Your task to perform on an android device: turn off notifications in google photos Image 0: 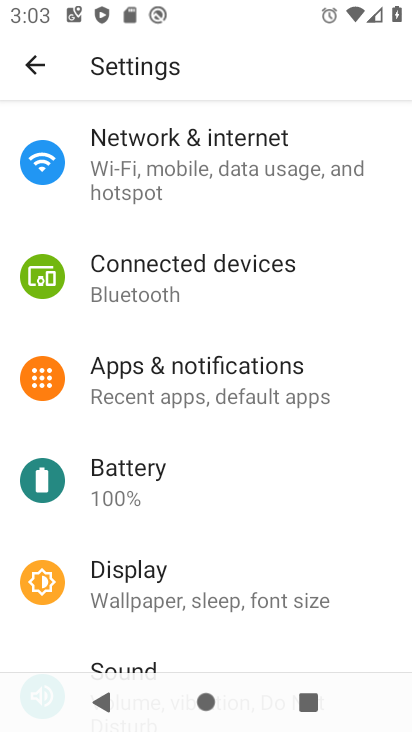
Step 0: press home button
Your task to perform on an android device: turn off notifications in google photos Image 1: 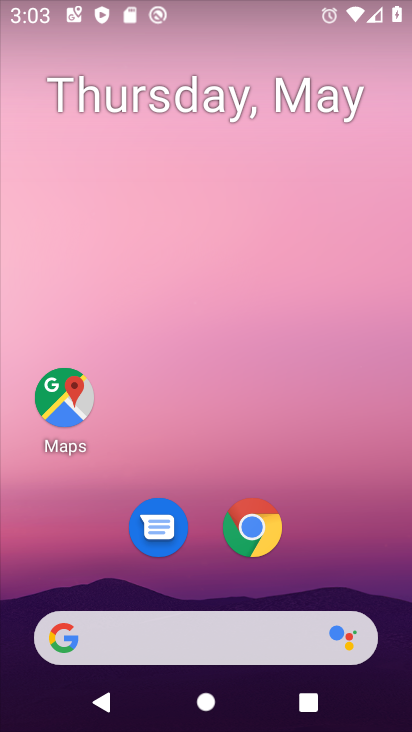
Step 1: drag from (114, 606) to (197, 128)
Your task to perform on an android device: turn off notifications in google photos Image 2: 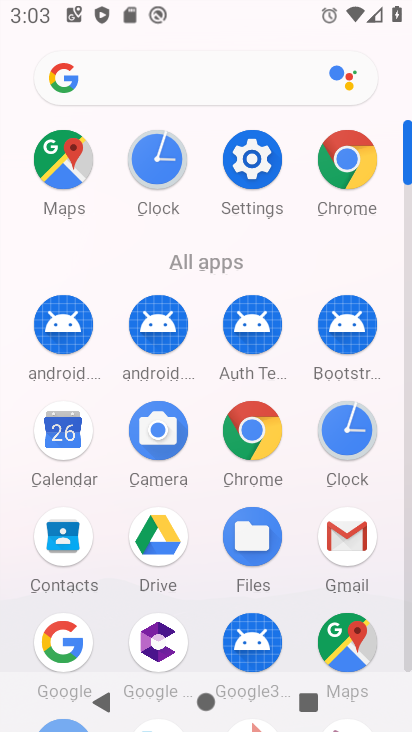
Step 2: drag from (193, 615) to (247, 328)
Your task to perform on an android device: turn off notifications in google photos Image 3: 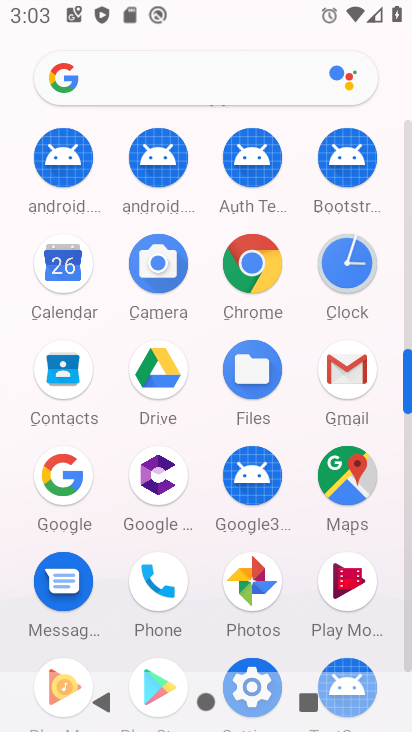
Step 3: click (262, 587)
Your task to perform on an android device: turn off notifications in google photos Image 4: 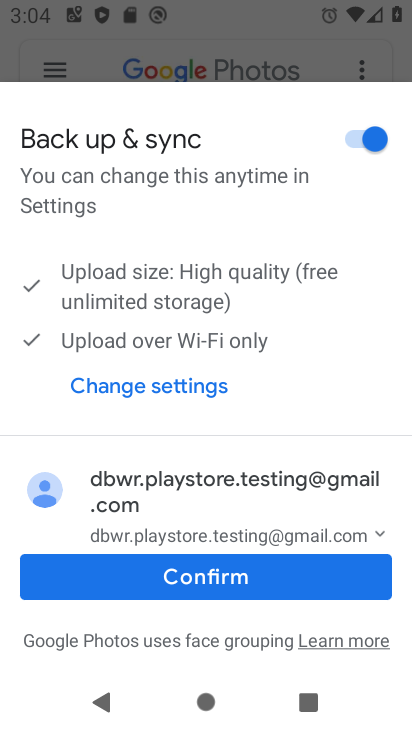
Step 4: click (239, 584)
Your task to perform on an android device: turn off notifications in google photos Image 5: 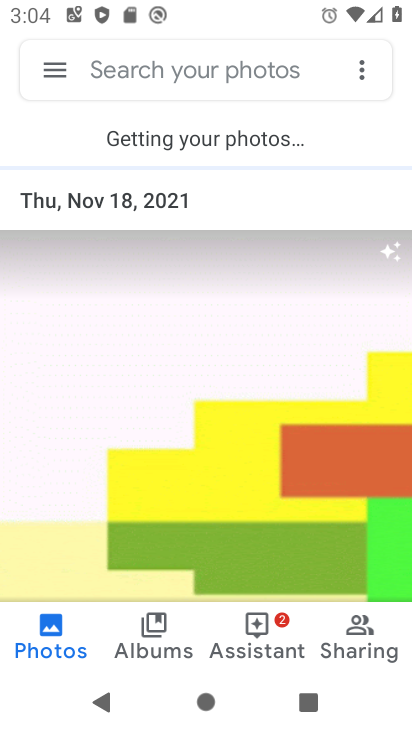
Step 5: click (53, 61)
Your task to perform on an android device: turn off notifications in google photos Image 6: 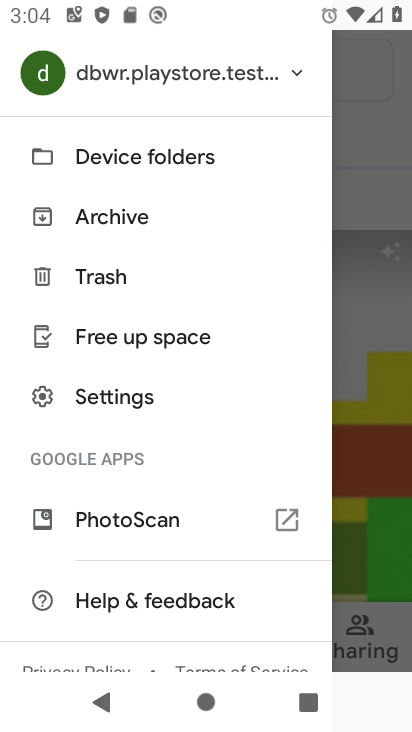
Step 6: click (149, 414)
Your task to perform on an android device: turn off notifications in google photos Image 7: 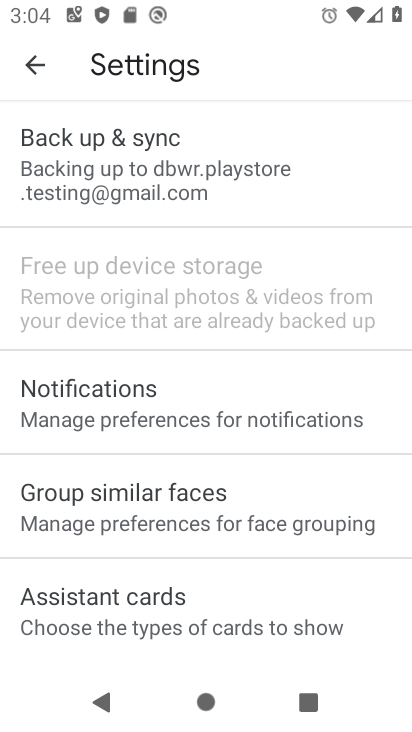
Step 7: click (151, 403)
Your task to perform on an android device: turn off notifications in google photos Image 8: 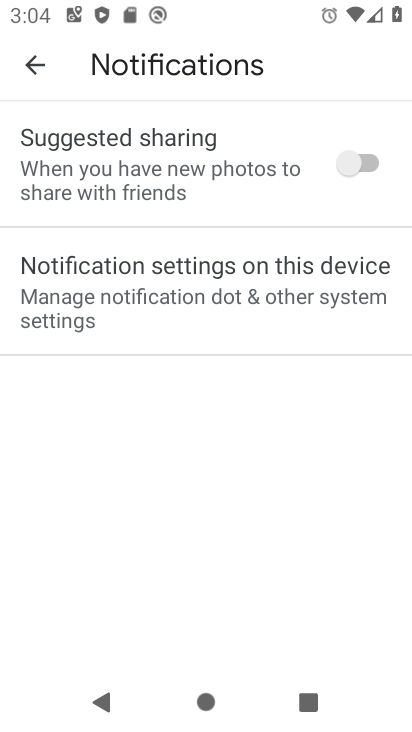
Step 8: click (210, 305)
Your task to perform on an android device: turn off notifications in google photos Image 9: 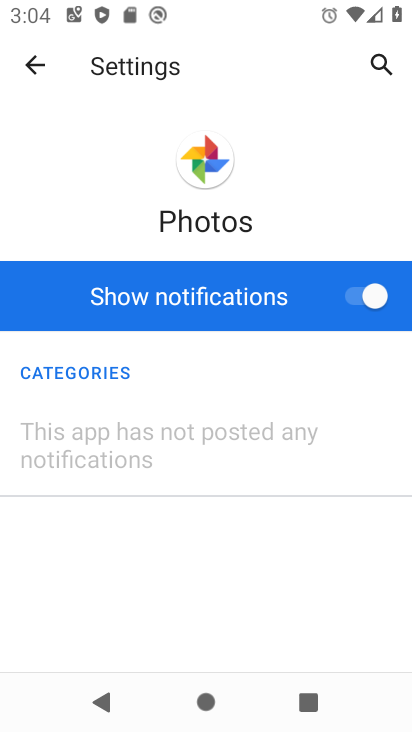
Step 9: click (367, 288)
Your task to perform on an android device: turn off notifications in google photos Image 10: 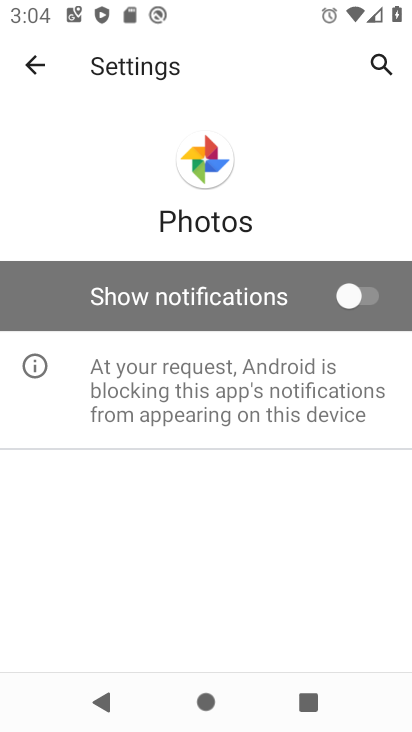
Step 10: task complete